Your task to perform on an android device: turn notification dots on Image 0: 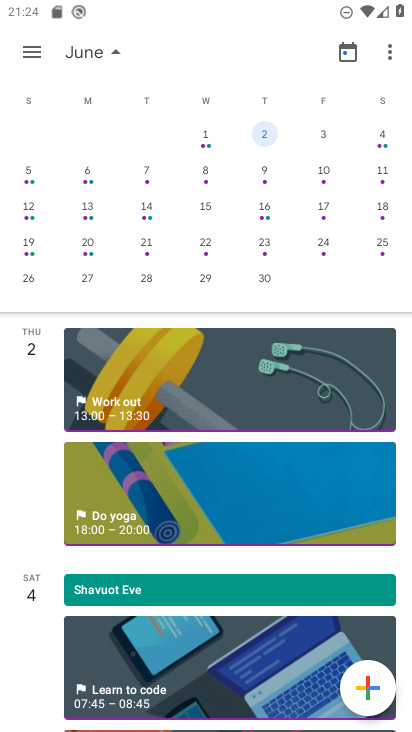
Step 0: press home button
Your task to perform on an android device: turn notification dots on Image 1: 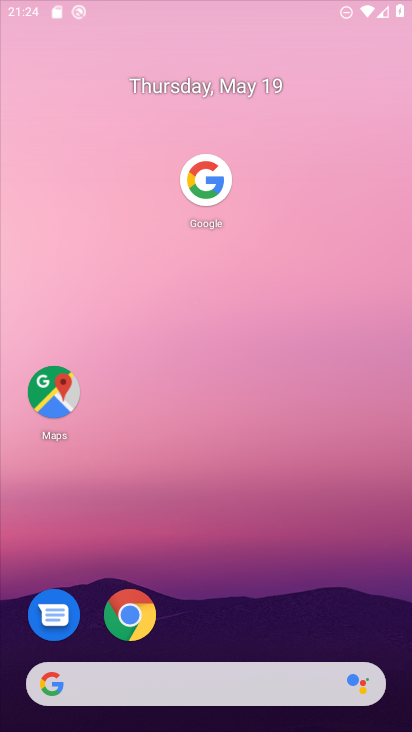
Step 1: drag from (259, 525) to (235, 8)
Your task to perform on an android device: turn notification dots on Image 2: 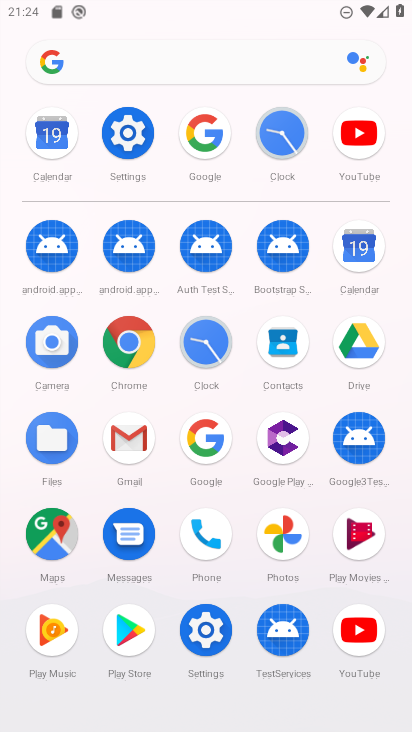
Step 2: click (132, 122)
Your task to perform on an android device: turn notification dots on Image 3: 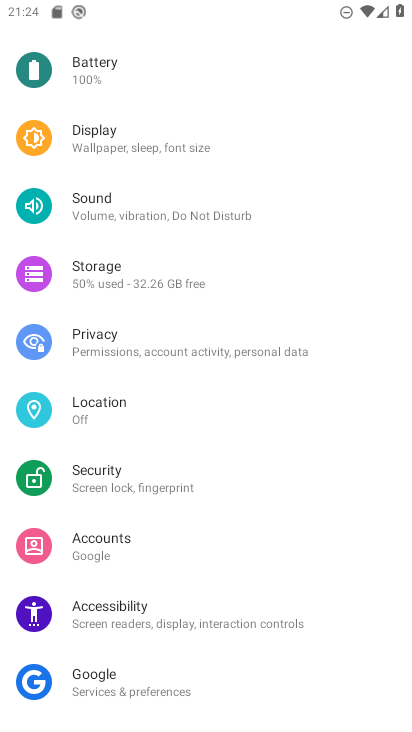
Step 3: drag from (116, 140) to (185, 506)
Your task to perform on an android device: turn notification dots on Image 4: 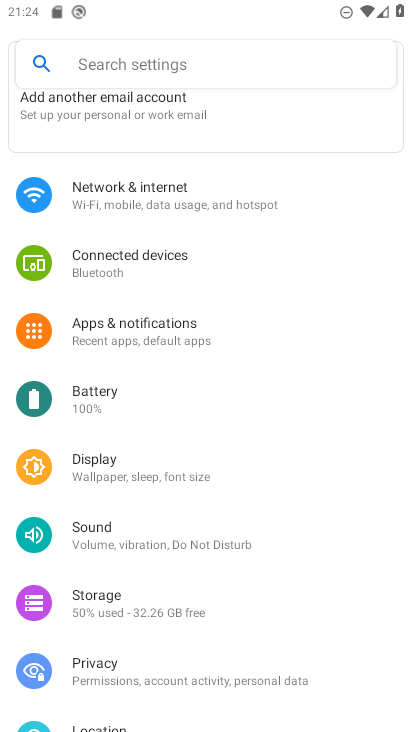
Step 4: drag from (135, 255) to (145, 457)
Your task to perform on an android device: turn notification dots on Image 5: 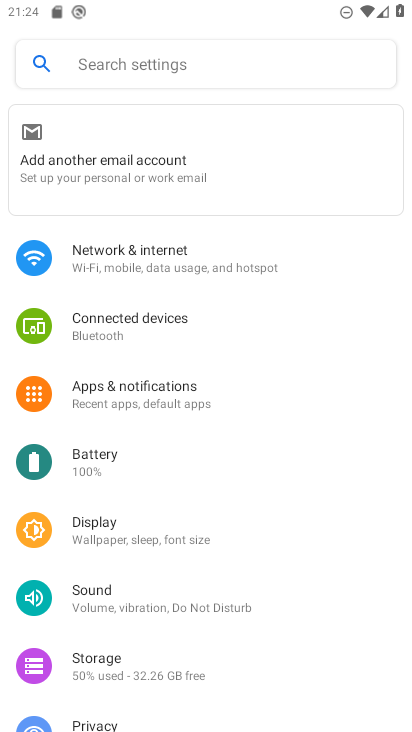
Step 5: click (146, 385)
Your task to perform on an android device: turn notification dots on Image 6: 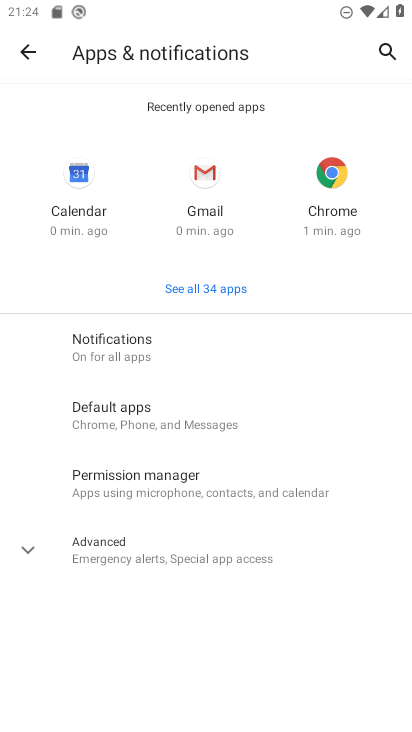
Step 6: click (152, 347)
Your task to perform on an android device: turn notification dots on Image 7: 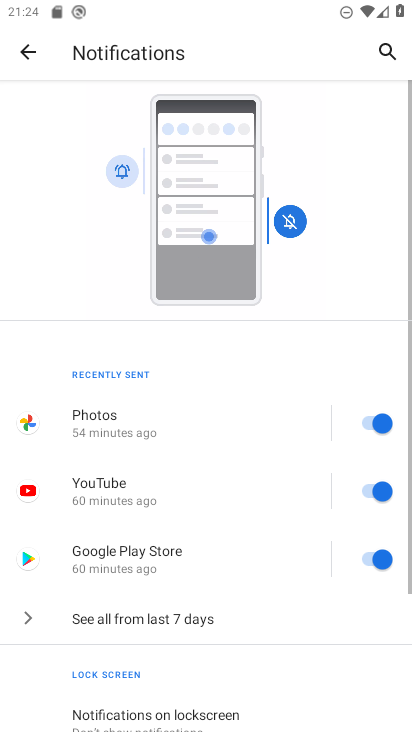
Step 7: drag from (238, 522) to (225, 2)
Your task to perform on an android device: turn notification dots on Image 8: 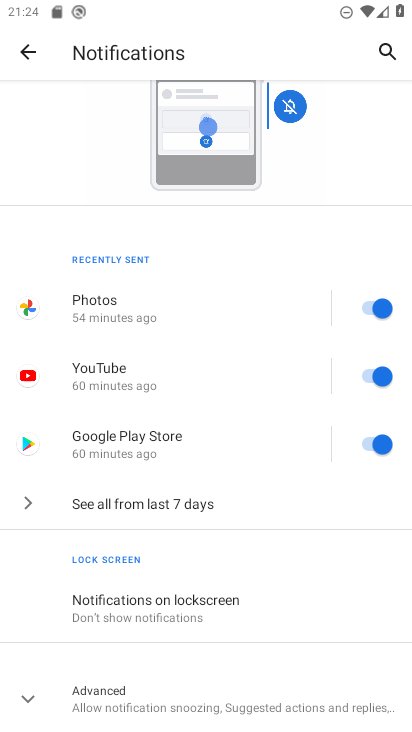
Step 8: click (128, 686)
Your task to perform on an android device: turn notification dots on Image 9: 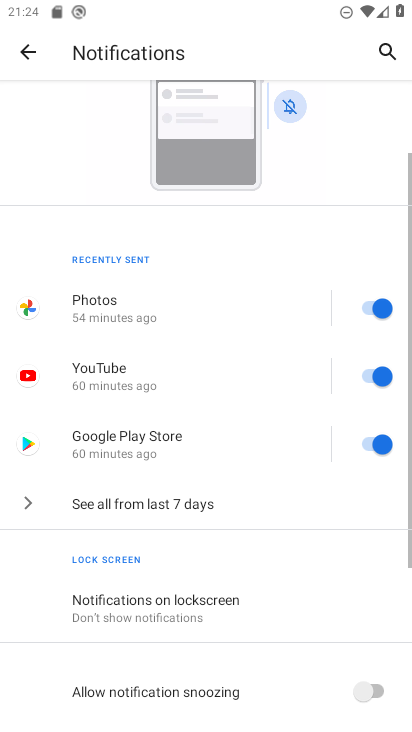
Step 9: drag from (251, 577) to (230, 201)
Your task to perform on an android device: turn notification dots on Image 10: 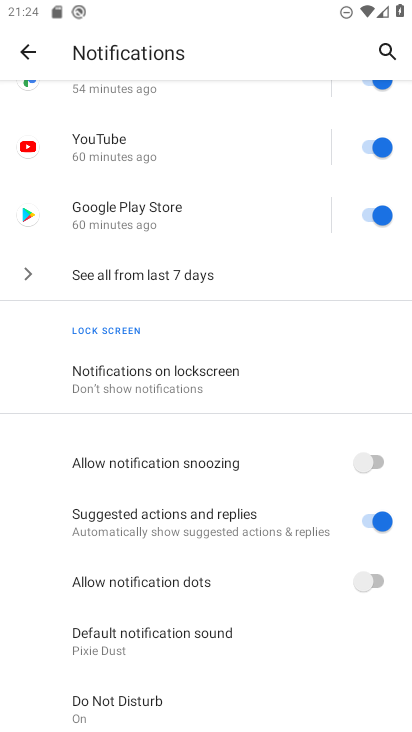
Step 10: click (373, 588)
Your task to perform on an android device: turn notification dots on Image 11: 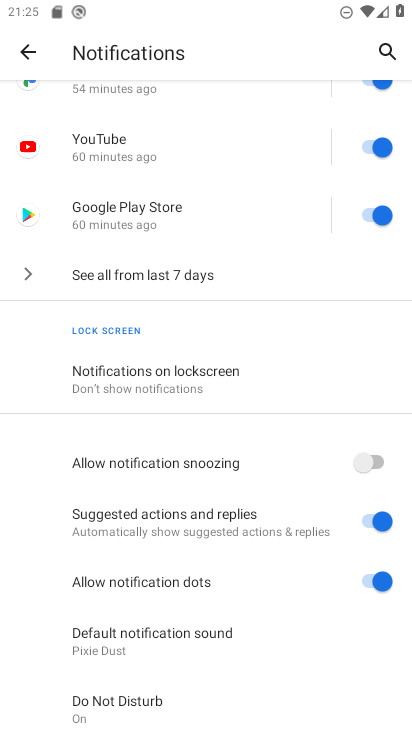
Step 11: task complete